Your task to perform on an android device: Open calendar and show me the fourth week of next month Image 0: 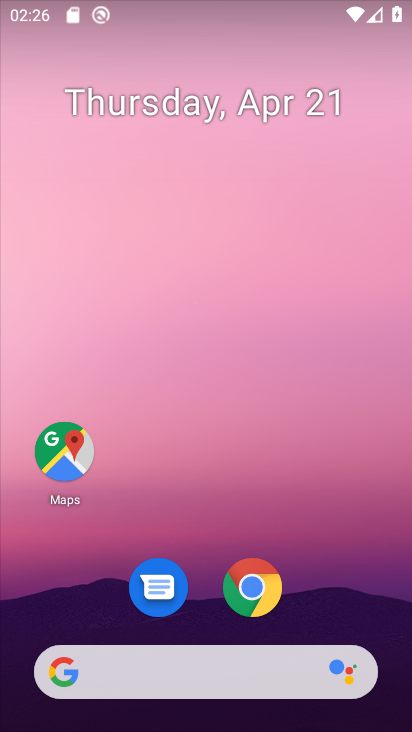
Step 0: drag from (346, 513) to (346, 89)
Your task to perform on an android device: Open calendar and show me the fourth week of next month Image 1: 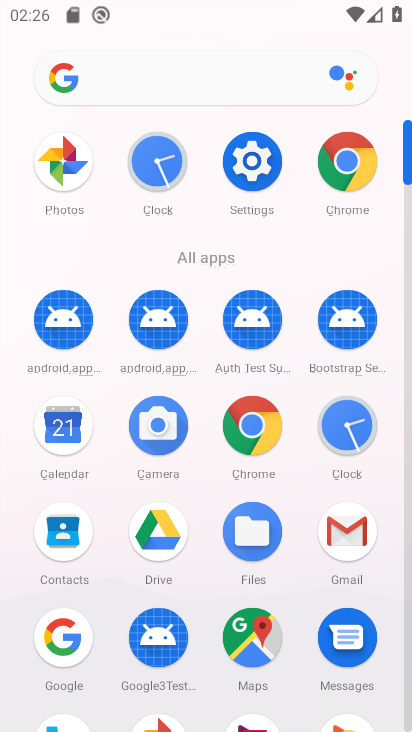
Step 1: click (73, 445)
Your task to perform on an android device: Open calendar and show me the fourth week of next month Image 2: 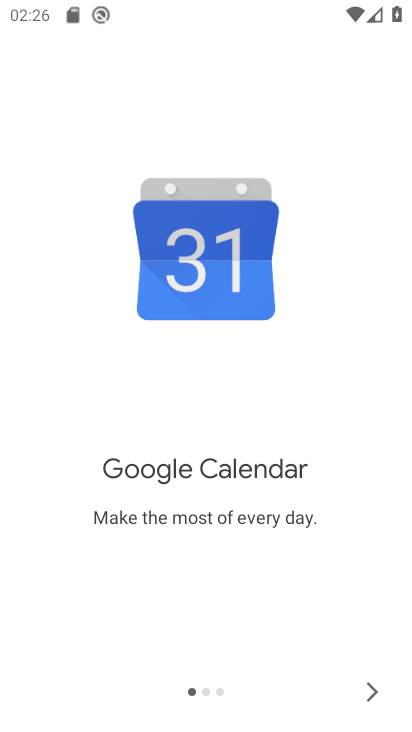
Step 2: click (359, 675)
Your task to perform on an android device: Open calendar and show me the fourth week of next month Image 3: 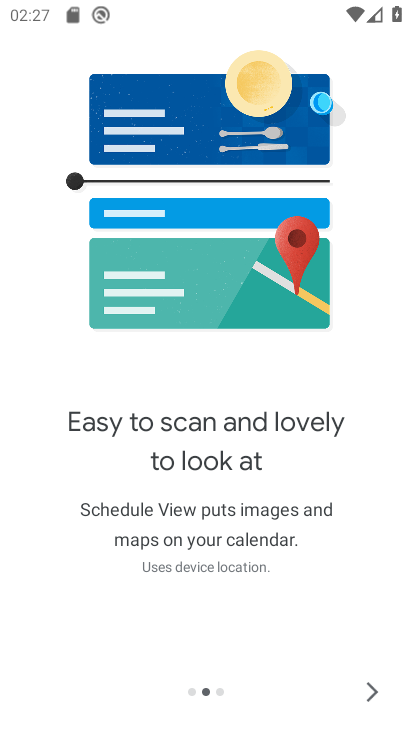
Step 3: click (368, 704)
Your task to perform on an android device: Open calendar and show me the fourth week of next month Image 4: 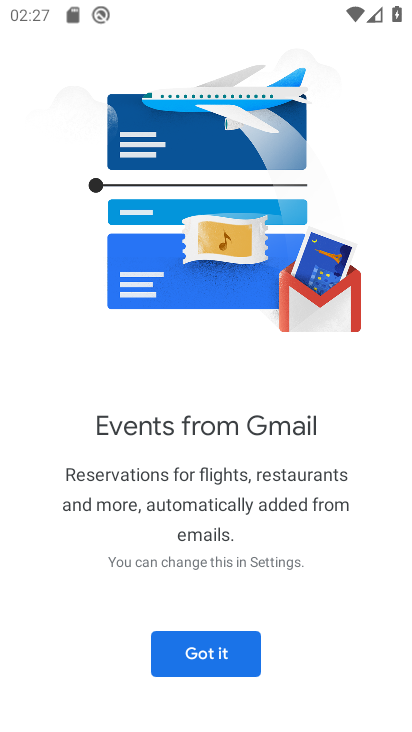
Step 4: click (245, 672)
Your task to perform on an android device: Open calendar and show me the fourth week of next month Image 5: 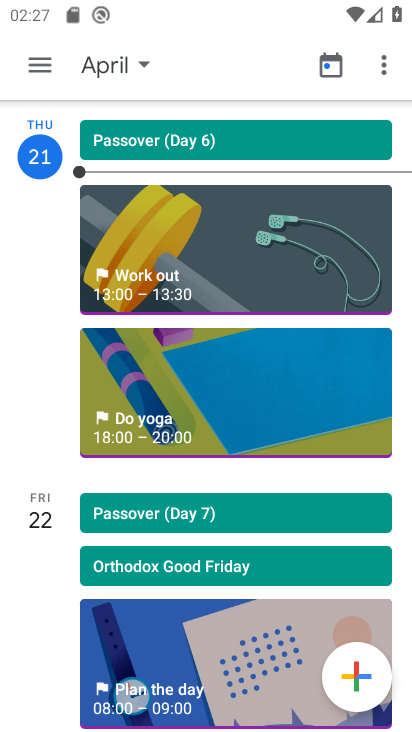
Step 5: click (166, 82)
Your task to perform on an android device: Open calendar and show me the fourth week of next month Image 6: 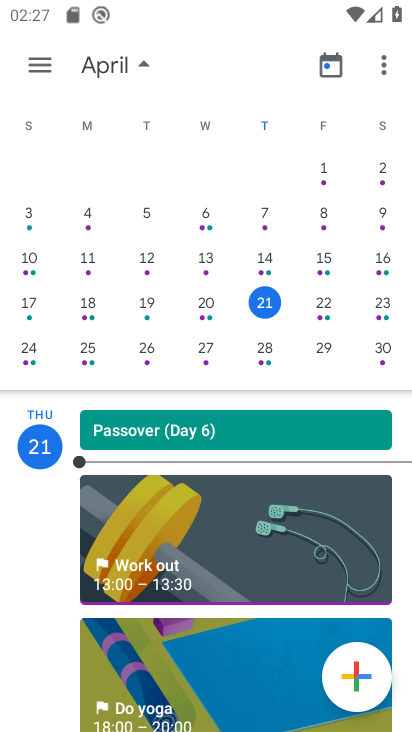
Step 6: drag from (358, 234) to (0, 240)
Your task to perform on an android device: Open calendar and show me the fourth week of next month Image 7: 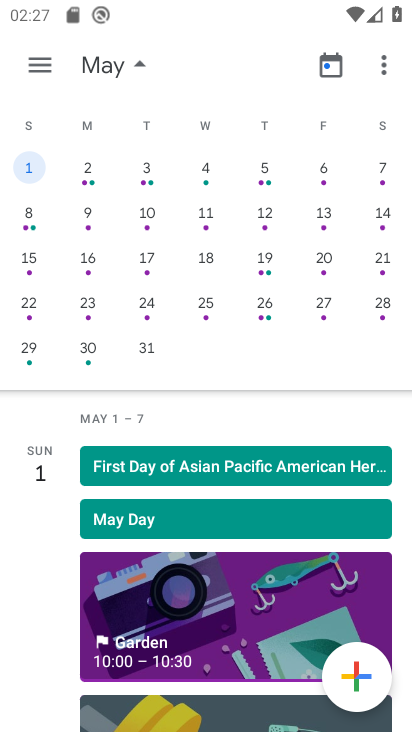
Step 7: click (145, 299)
Your task to perform on an android device: Open calendar and show me the fourth week of next month Image 8: 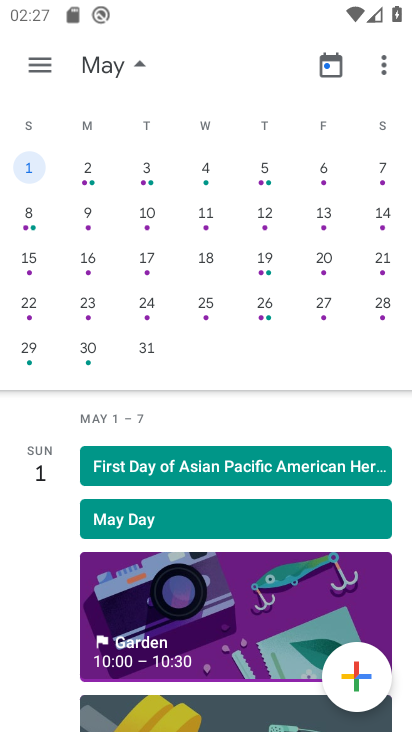
Step 8: click (144, 294)
Your task to perform on an android device: Open calendar and show me the fourth week of next month Image 9: 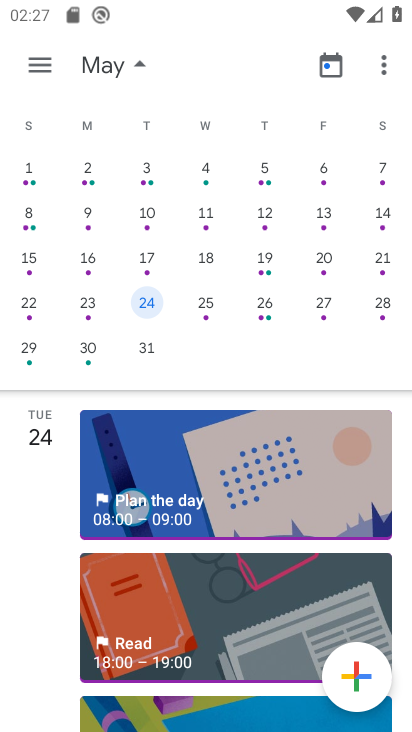
Step 9: task complete